Your task to perform on an android device: allow cookies in the chrome app Image 0: 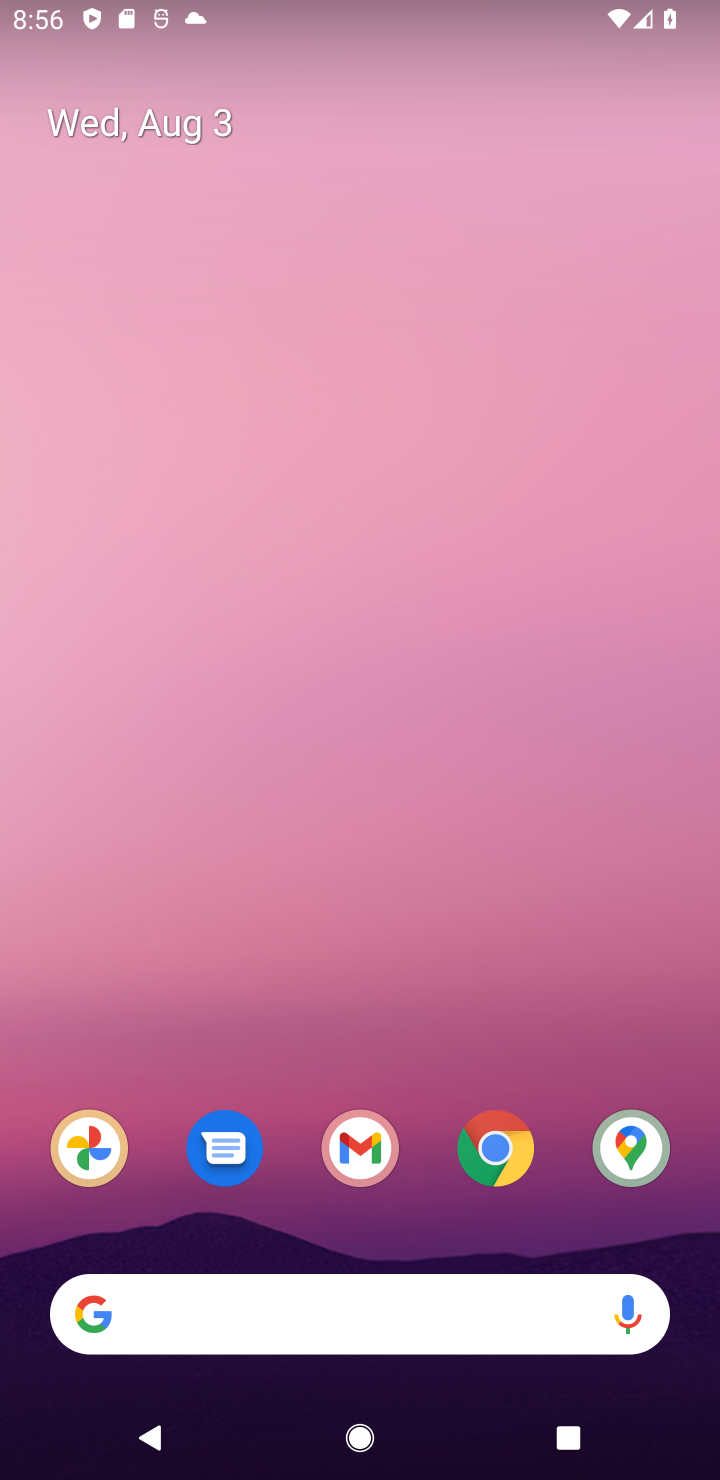
Step 0: click (477, 1172)
Your task to perform on an android device: allow cookies in the chrome app Image 1: 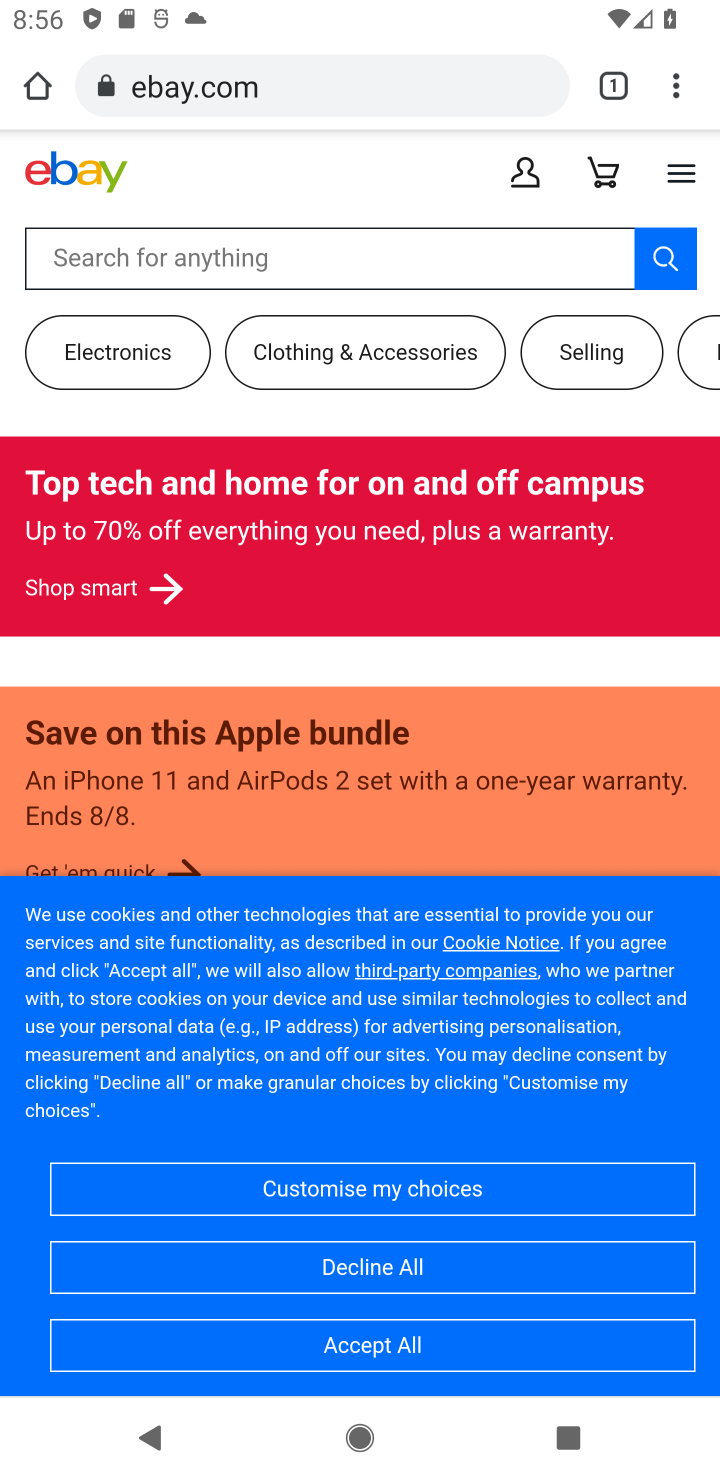
Step 1: task complete